Your task to perform on an android device: Open location settings Image 0: 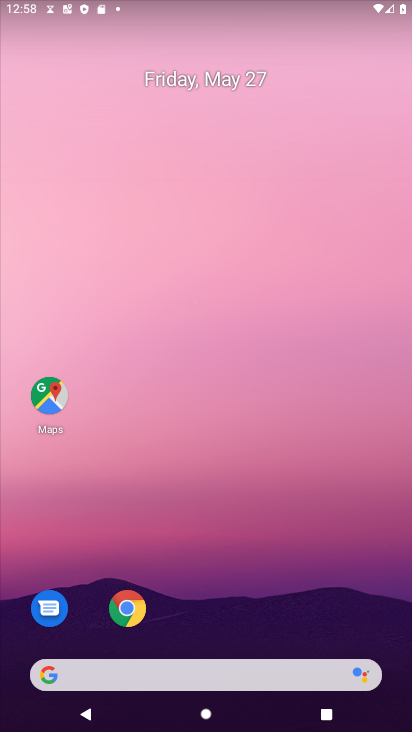
Step 0: drag from (212, 507) to (253, 3)
Your task to perform on an android device: Open location settings Image 1: 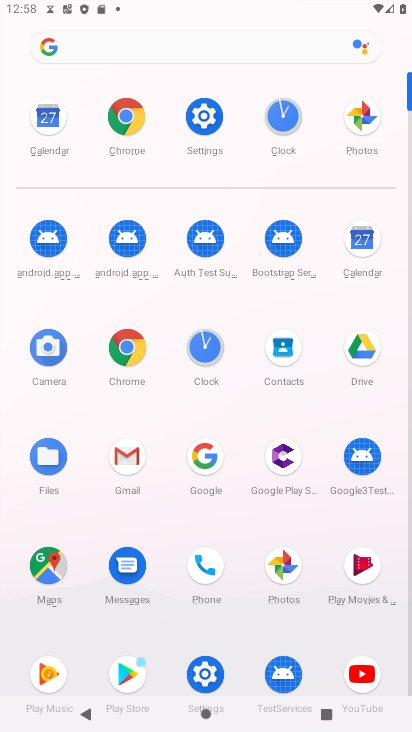
Step 1: click (199, 104)
Your task to perform on an android device: Open location settings Image 2: 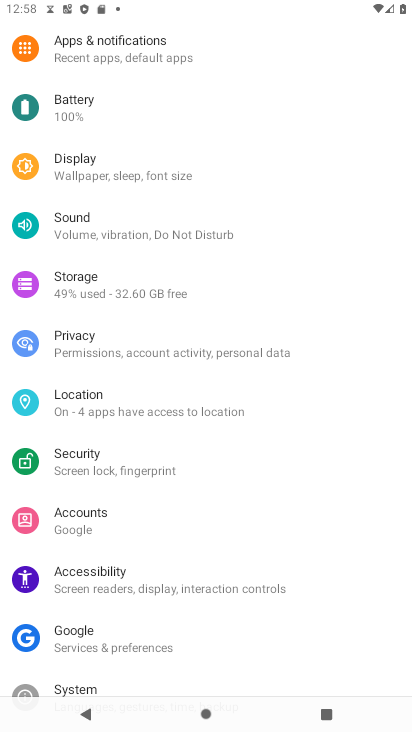
Step 2: click (63, 419)
Your task to perform on an android device: Open location settings Image 3: 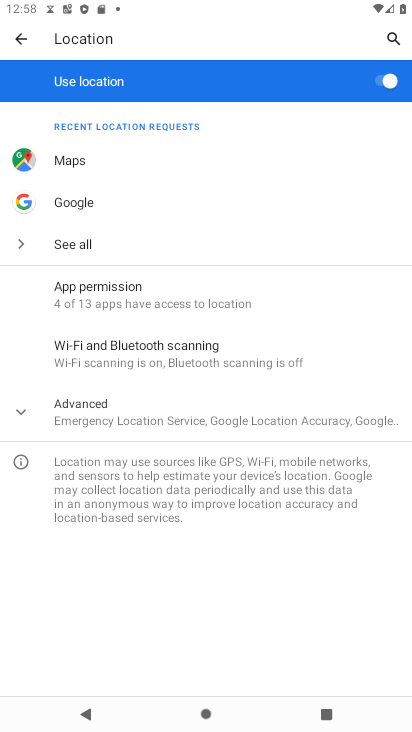
Step 3: task complete